Your task to perform on an android device: turn off improve location accuracy Image 0: 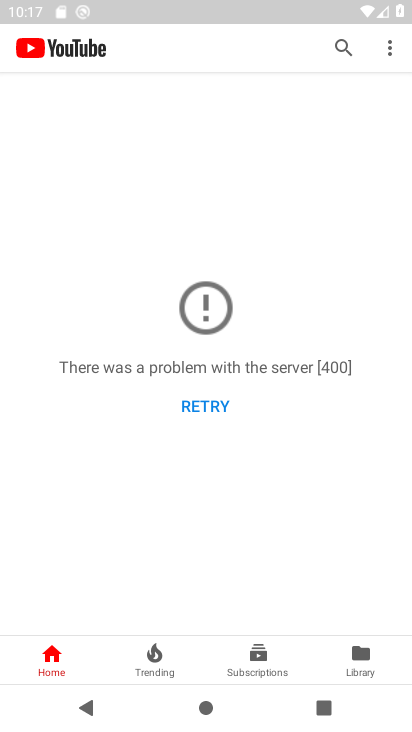
Step 0: press home button
Your task to perform on an android device: turn off improve location accuracy Image 1: 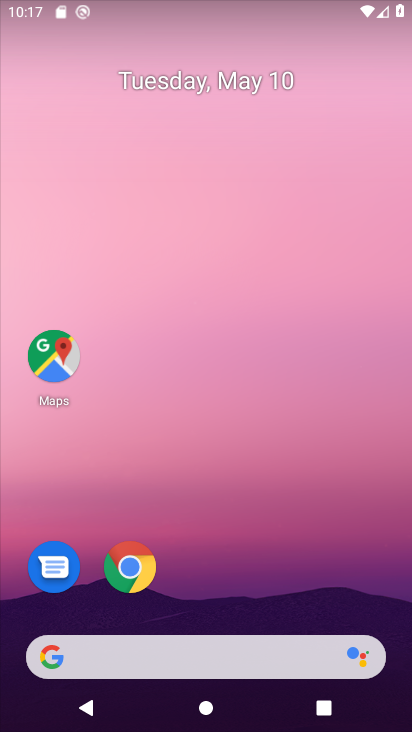
Step 1: drag from (214, 600) to (267, 57)
Your task to perform on an android device: turn off improve location accuracy Image 2: 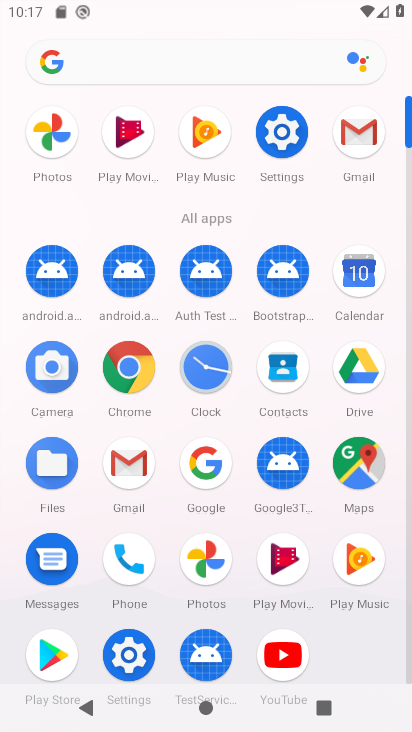
Step 2: click (275, 137)
Your task to perform on an android device: turn off improve location accuracy Image 3: 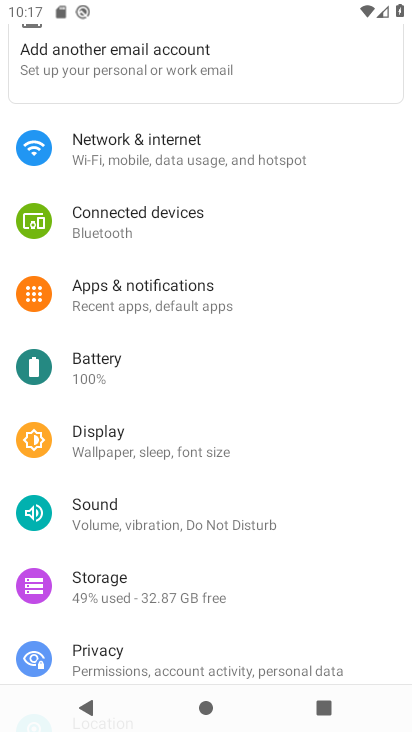
Step 3: drag from (154, 594) to (213, 342)
Your task to perform on an android device: turn off improve location accuracy Image 4: 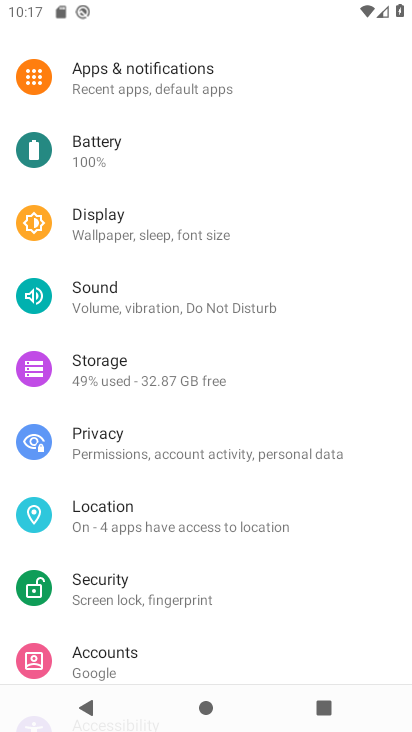
Step 4: click (150, 521)
Your task to perform on an android device: turn off improve location accuracy Image 5: 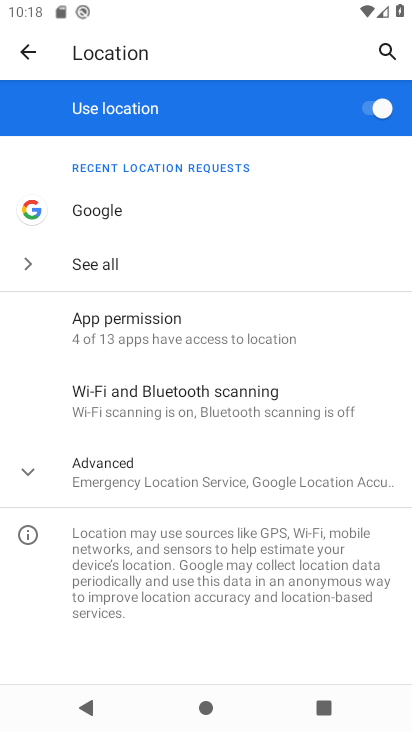
Step 5: click (22, 471)
Your task to perform on an android device: turn off improve location accuracy Image 6: 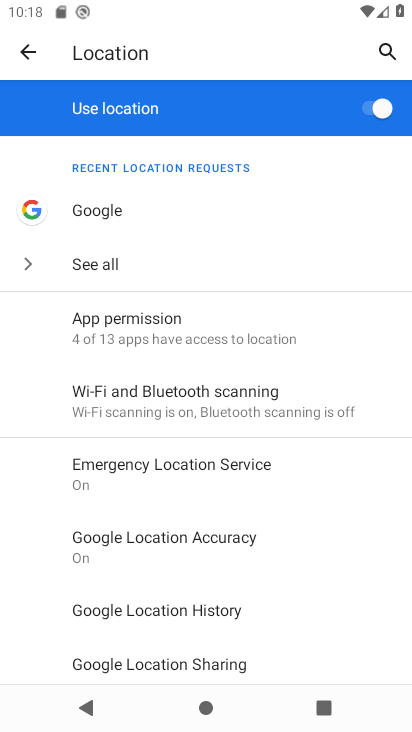
Step 6: click (170, 537)
Your task to perform on an android device: turn off improve location accuracy Image 7: 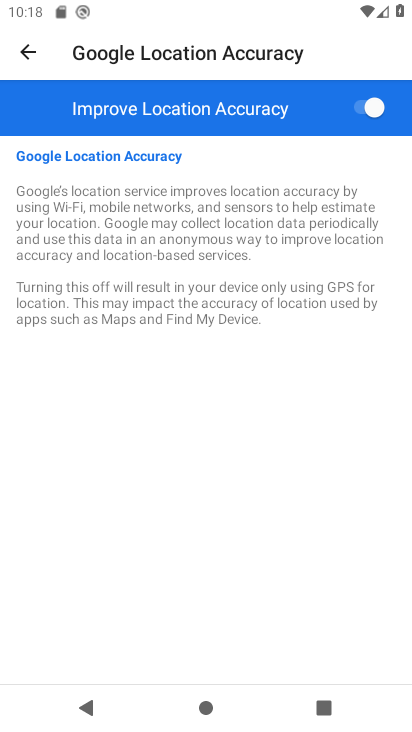
Step 7: click (368, 113)
Your task to perform on an android device: turn off improve location accuracy Image 8: 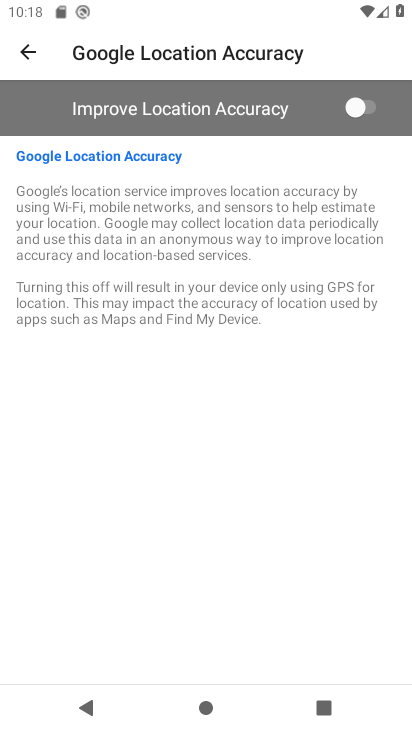
Step 8: task complete